Your task to perform on an android device: clear all cookies in the chrome app Image 0: 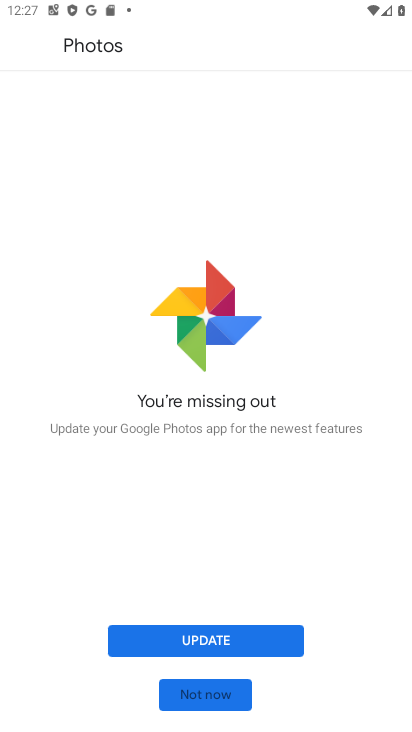
Step 0: press home button
Your task to perform on an android device: clear all cookies in the chrome app Image 1: 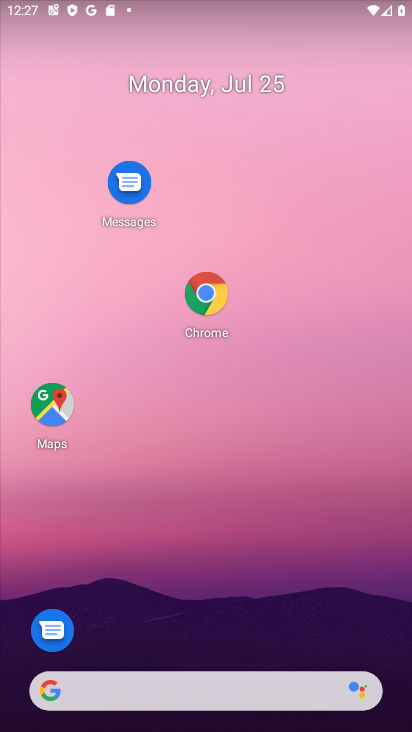
Step 1: drag from (249, 488) to (253, 358)
Your task to perform on an android device: clear all cookies in the chrome app Image 2: 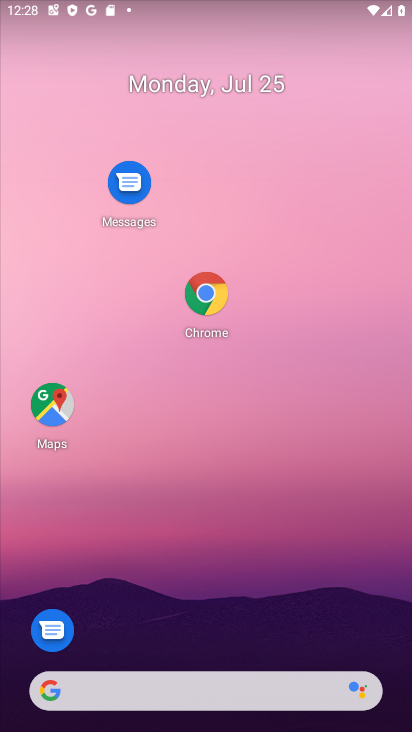
Step 2: click (190, 305)
Your task to perform on an android device: clear all cookies in the chrome app Image 3: 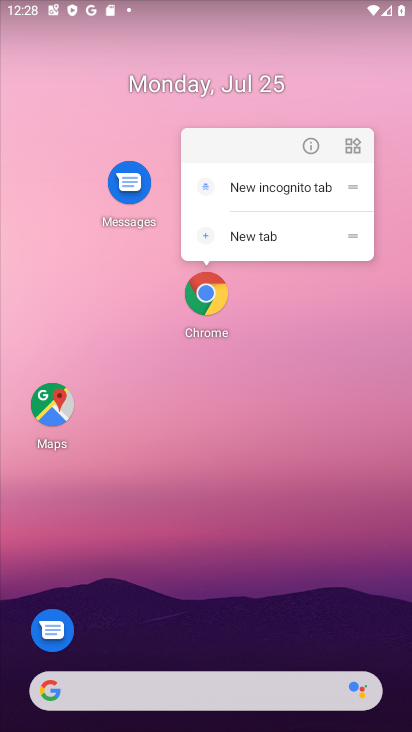
Step 3: click (218, 307)
Your task to perform on an android device: clear all cookies in the chrome app Image 4: 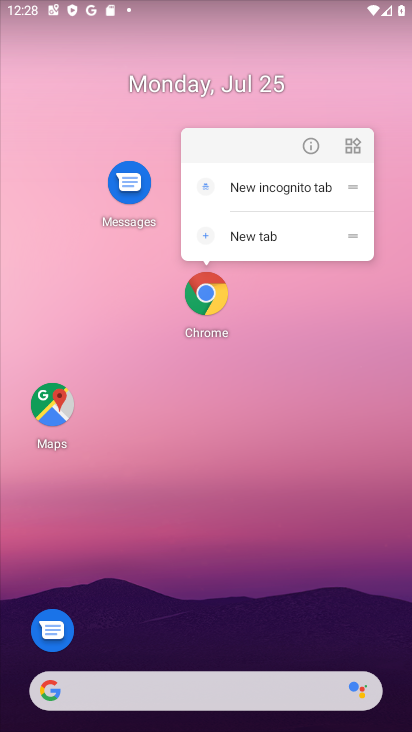
Step 4: click (183, 301)
Your task to perform on an android device: clear all cookies in the chrome app Image 5: 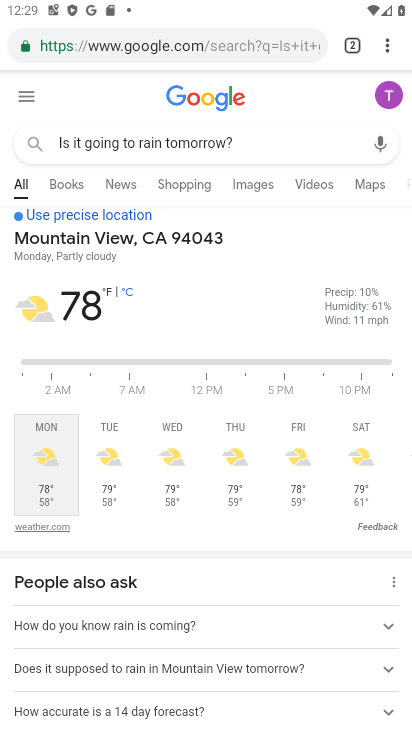
Step 5: click (384, 44)
Your task to perform on an android device: clear all cookies in the chrome app Image 6: 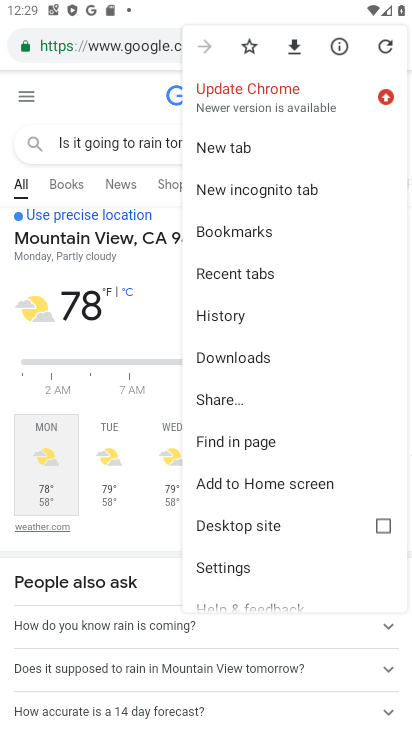
Step 6: click (246, 567)
Your task to perform on an android device: clear all cookies in the chrome app Image 7: 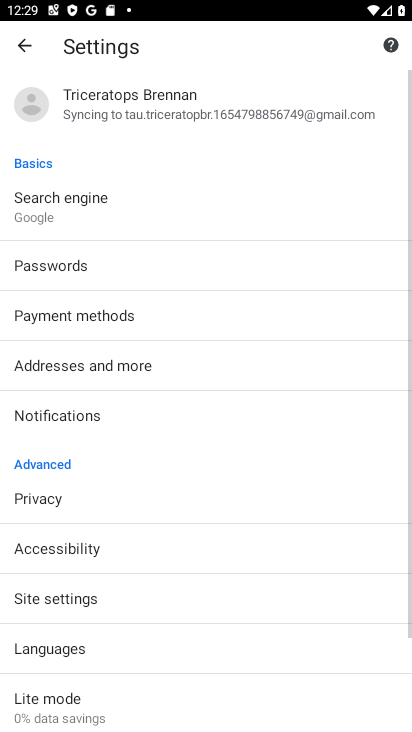
Step 7: drag from (191, 618) to (230, 117)
Your task to perform on an android device: clear all cookies in the chrome app Image 8: 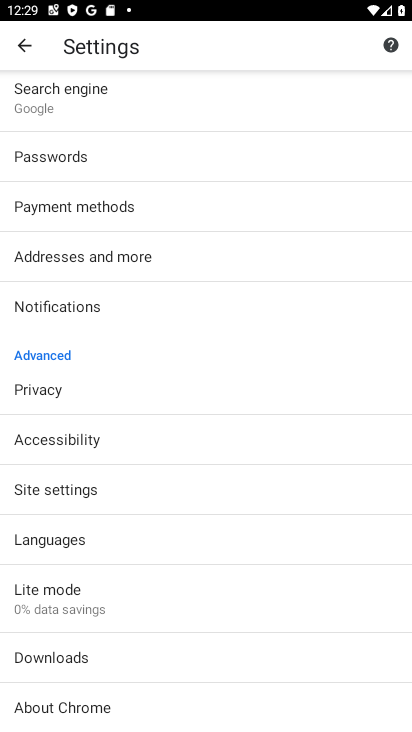
Step 8: click (49, 492)
Your task to perform on an android device: clear all cookies in the chrome app Image 9: 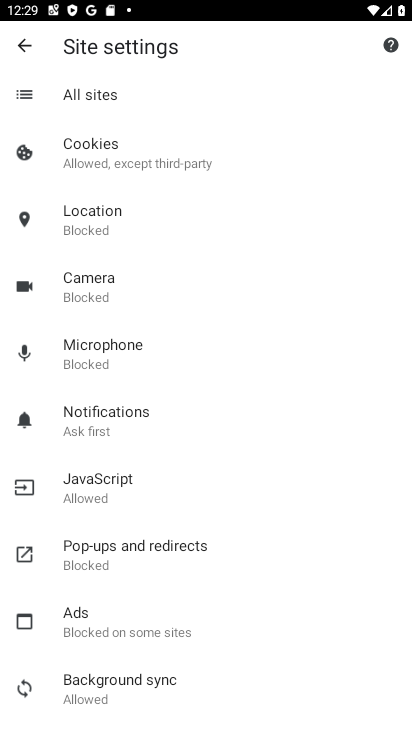
Step 9: click (102, 139)
Your task to perform on an android device: clear all cookies in the chrome app Image 10: 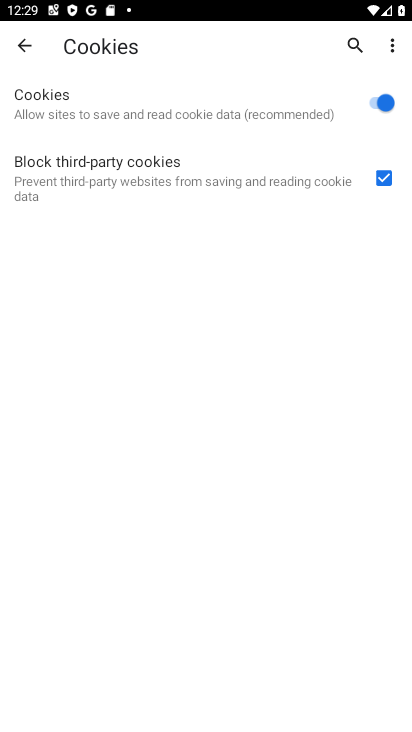
Step 10: task complete